Your task to perform on an android device: toggle data saver in the chrome app Image 0: 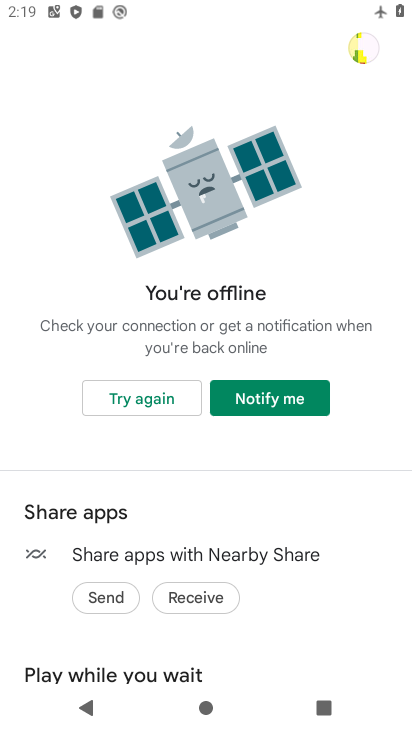
Step 0: press home button
Your task to perform on an android device: toggle data saver in the chrome app Image 1: 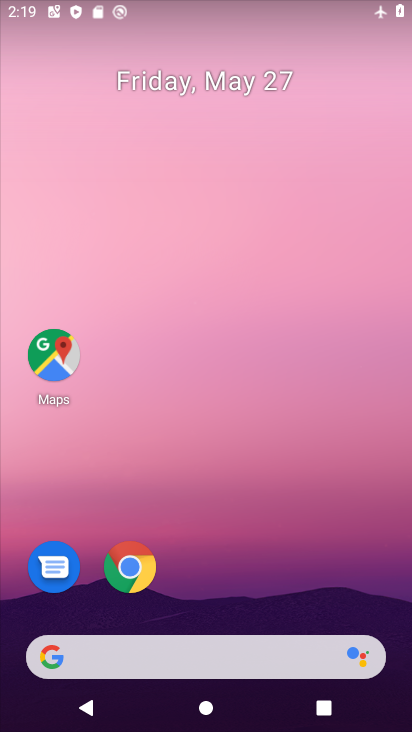
Step 1: click (134, 572)
Your task to perform on an android device: toggle data saver in the chrome app Image 2: 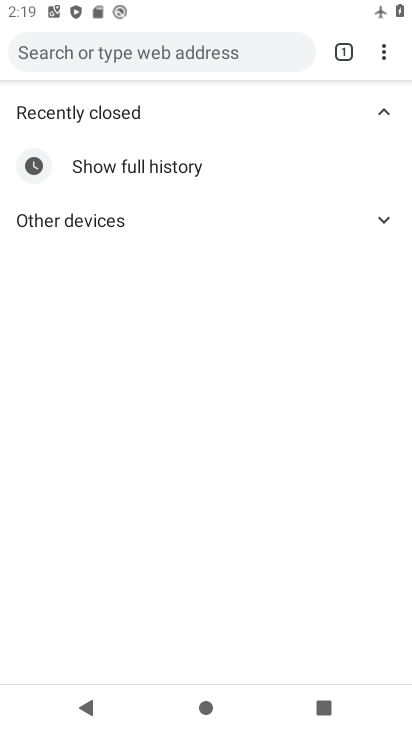
Step 2: drag from (322, 6) to (295, 510)
Your task to perform on an android device: toggle data saver in the chrome app Image 3: 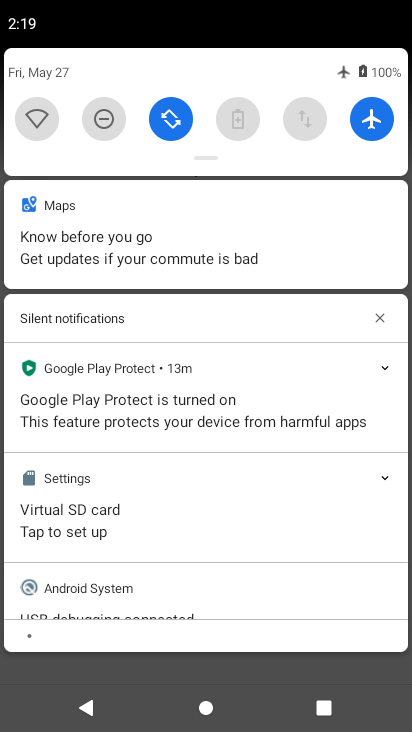
Step 3: click (365, 115)
Your task to perform on an android device: toggle data saver in the chrome app Image 4: 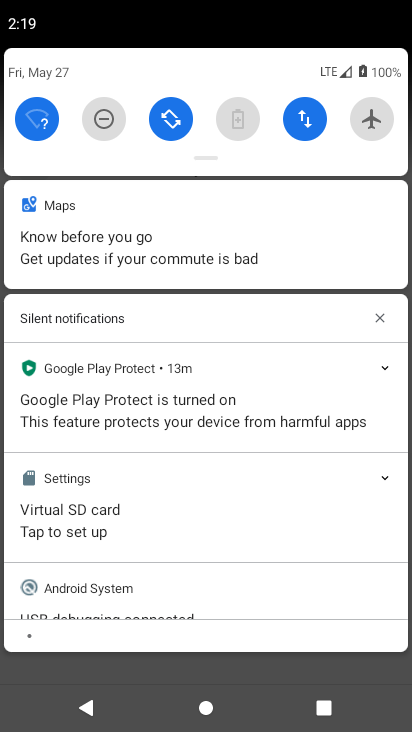
Step 4: click (264, 662)
Your task to perform on an android device: toggle data saver in the chrome app Image 5: 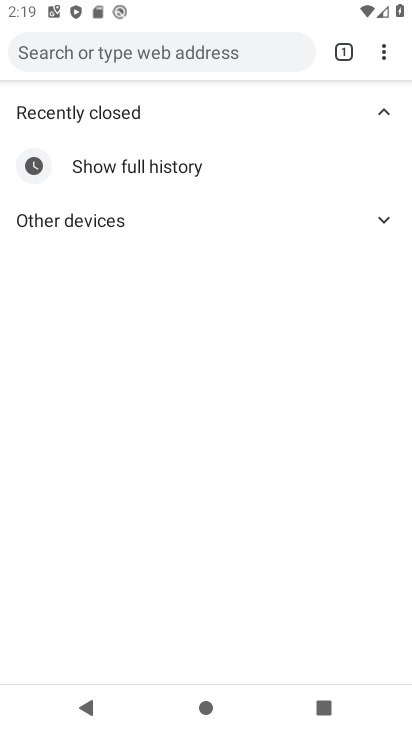
Step 5: drag from (379, 51) to (180, 428)
Your task to perform on an android device: toggle data saver in the chrome app Image 6: 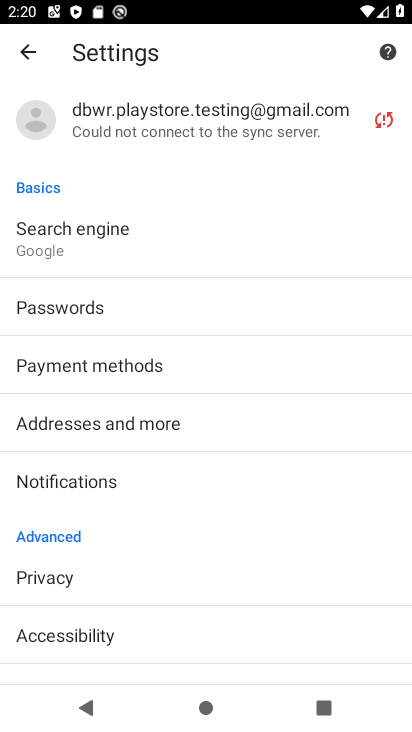
Step 6: drag from (156, 542) to (185, 263)
Your task to perform on an android device: toggle data saver in the chrome app Image 7: 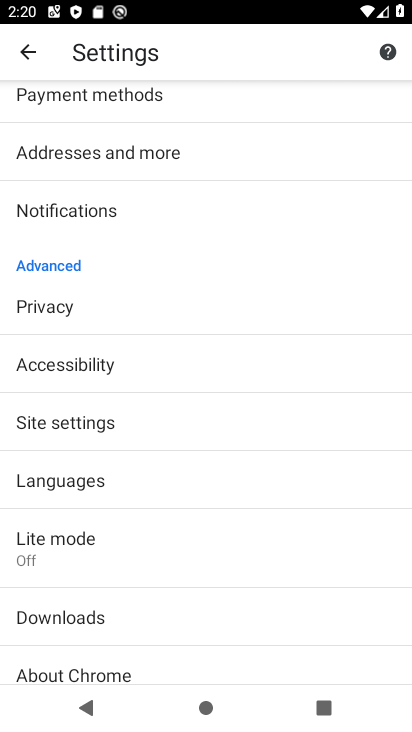
Step 7: click (40, 537)
Your task to perform on an android device: toggle data saver in the chrome app Image 8: 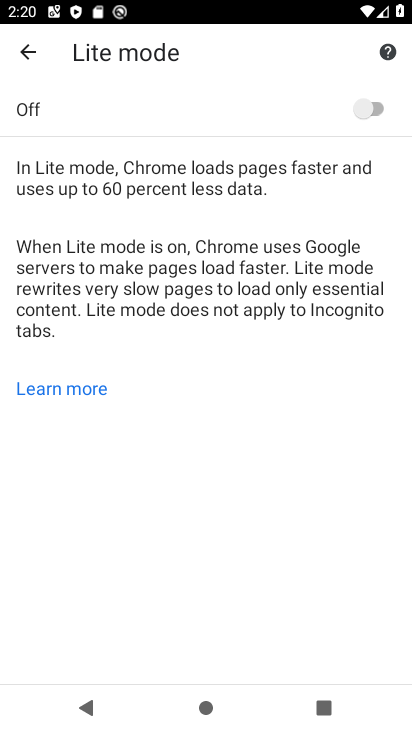
Step 8: click (358, 109)
Your task to perform on an android device: toggle data saver in the chrome app Image 9: 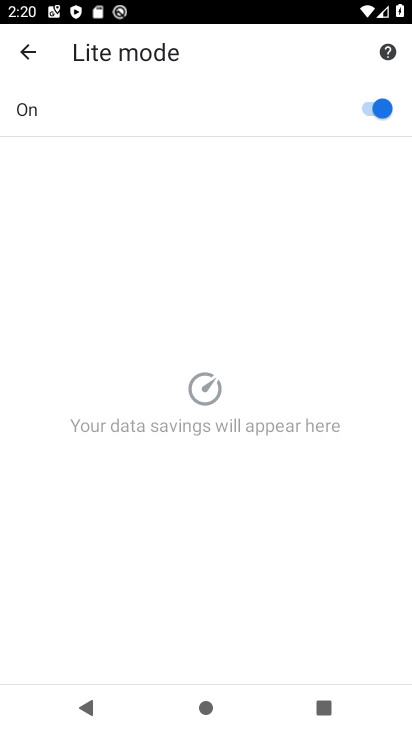
Step 9: task complete